Your task to perform on an android device: toggle priority inbox in the gmail app Image 0: 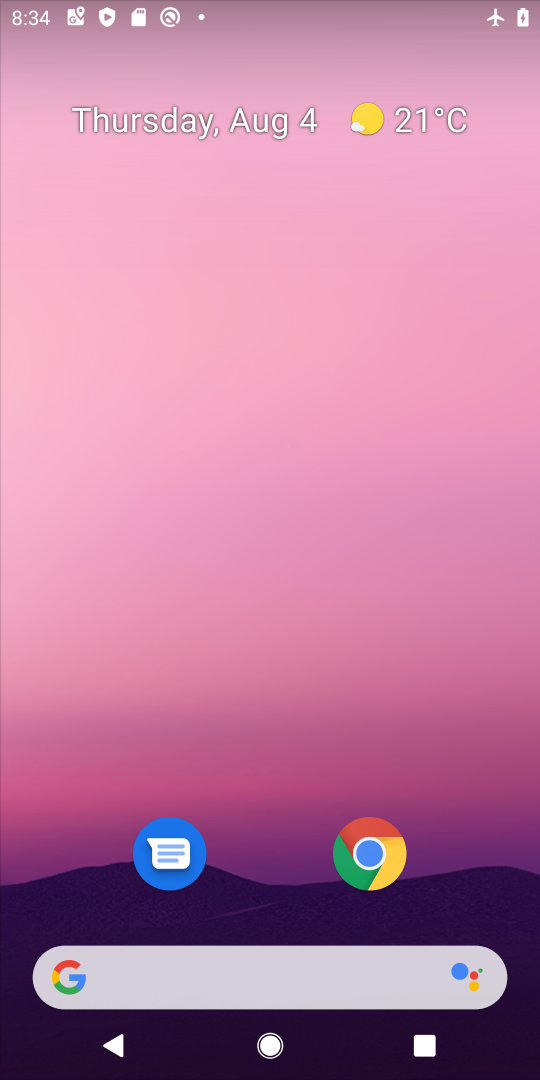
Step 0: press home button
Your task to perform on an android device: toggle priority inbox in the gmail app Image 1: 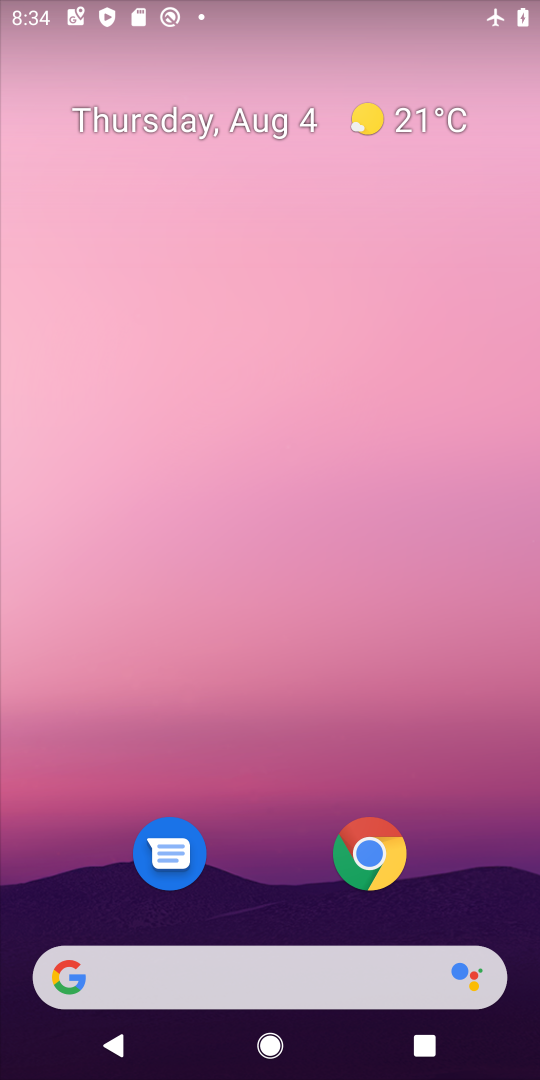
Step 1: drag from (214, 966) to (214, 272)
Your task to perform on an android device: toggle priority inbox in the gmail app Image 2: 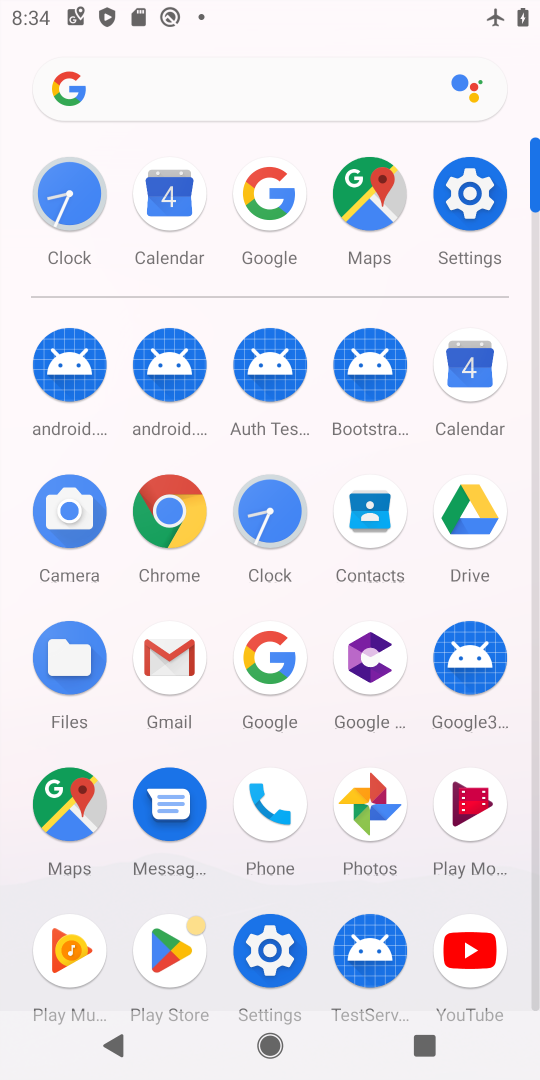
Step 2: click (76, 817)
Your task to perform on an android device: toggle priority inbox in the gmail app Image 3: 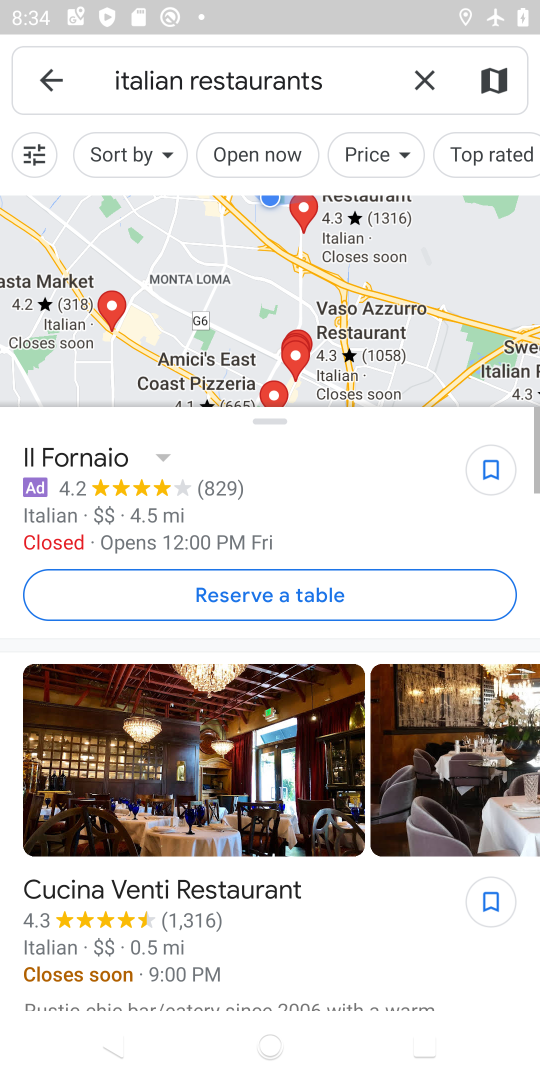
Step 3: click (418, 68)
Your task to perform on an android device: toggle priority inbox in the gmail app Image 4: 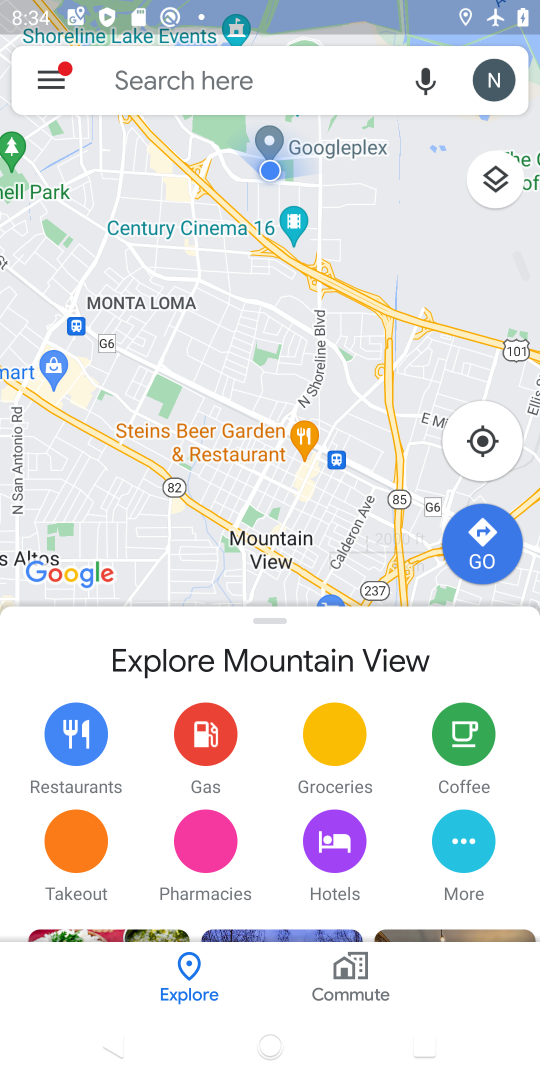
Step 4: task complete